Your task to perform on an android device: turn off wifi Image 0: 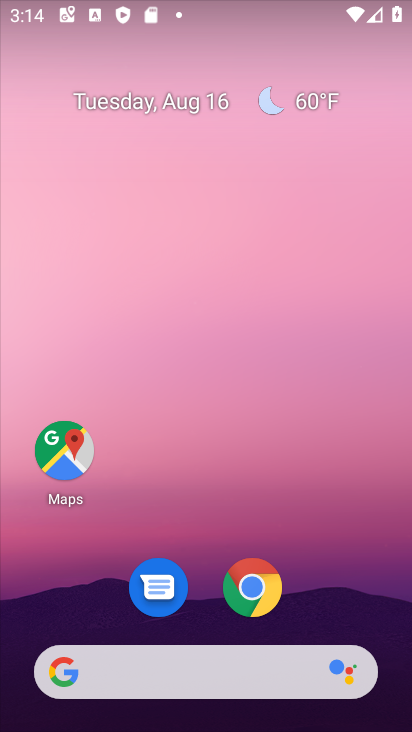
Step 0: drag from (137, 11) to (126, 523)
Your task to perform on an android device: turn off wifi Image 1: 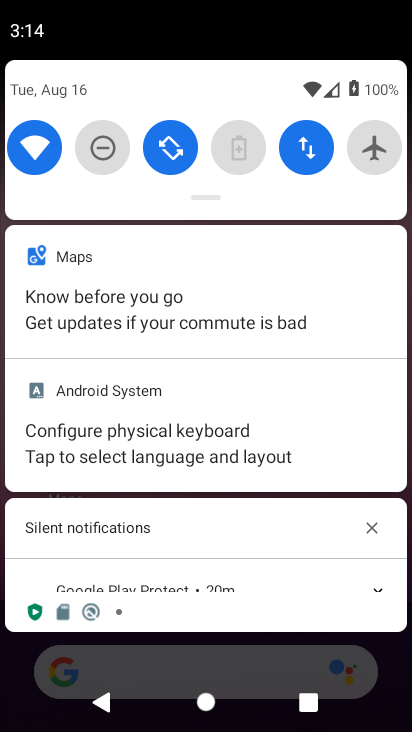
Step 1: click (36, 150)
Your task to perform on an android device: turn off wifi Image 2: 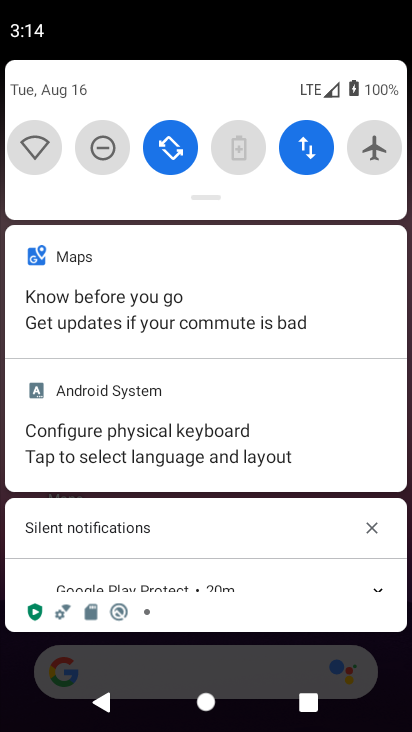
Step 2: task complete